Your task to perform on an android device: Turn on the flashlight Image 0: 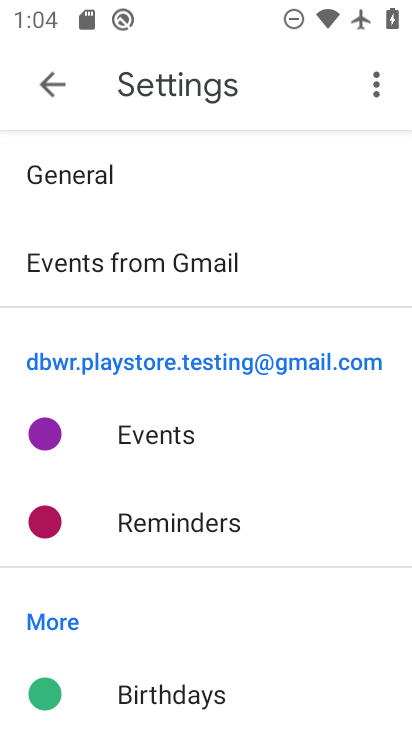
Step 0: press home button
Your task to perform on an android device: Turn on the flashlight Image 1: 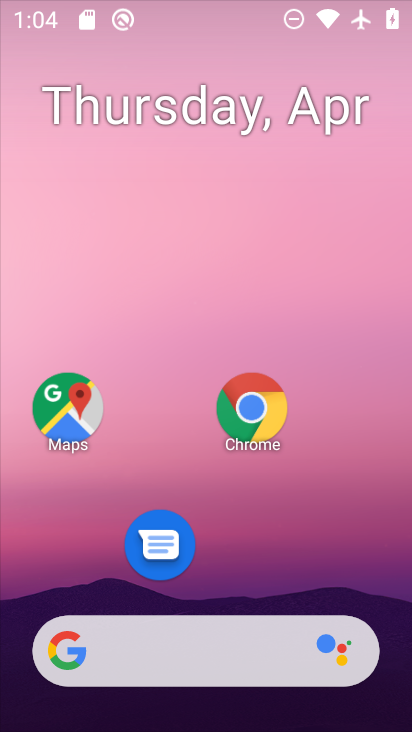
Step 1: task complete